Your task to perform on an android device: toggle sleep mode Image 0: 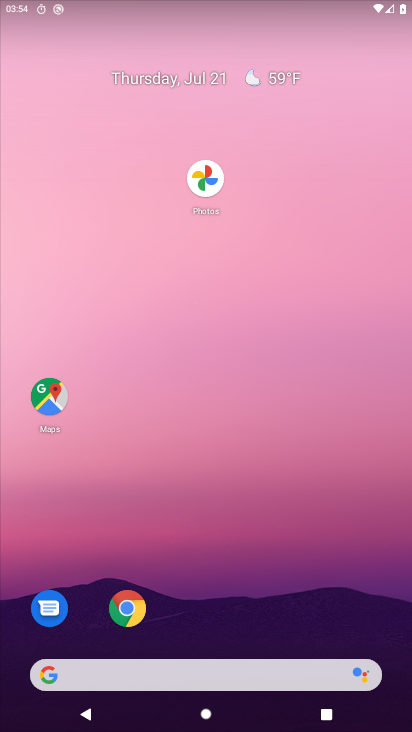
Step 0: drag from (218, 623) to (227, 320)
Your task to perform on an android device: toggle sleep mode Image 1: 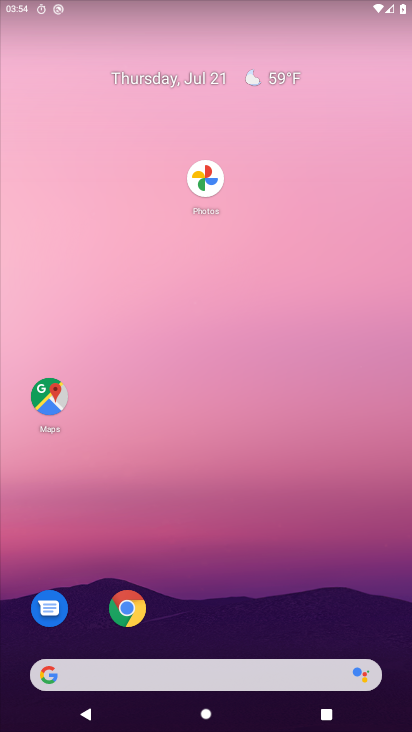
Step 1: drag from (194, 636) to (181, 251)
Your task to perform on an android device: toggle sleep mode Image 2: 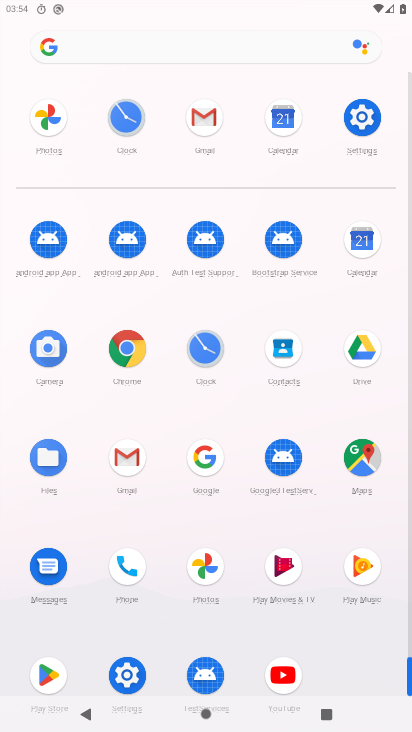
Step 2: click (365, 100)
Your task to perform on an android device: toggle sleep mode Image 3: 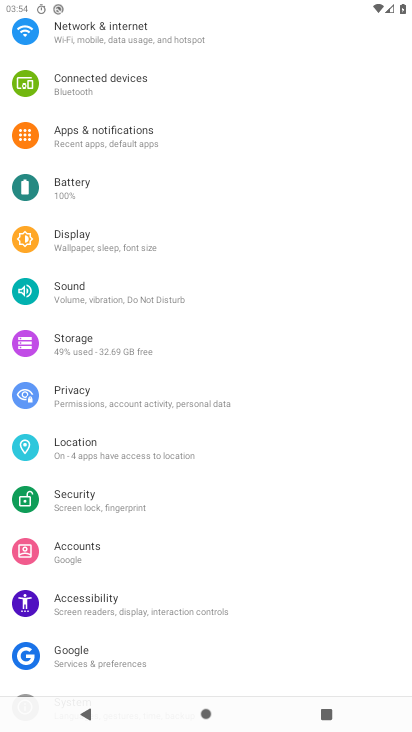
Step 3: click (99, 224)
Your task to perform on an android device: toggle sleep mode Image 4: 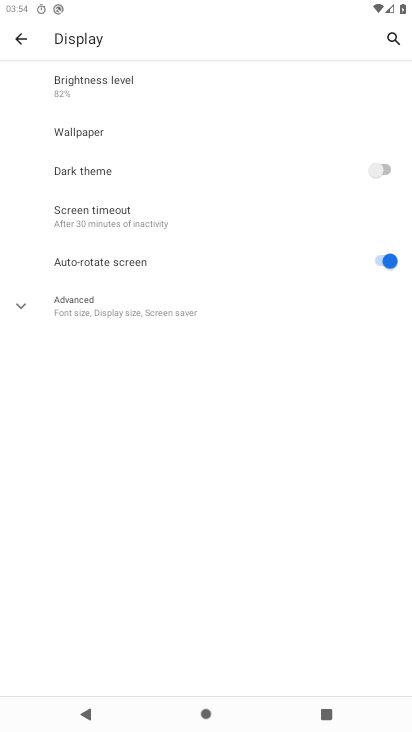
Step 4: click (19, 302)
Your task to perform on an android device: toggle sleep mode Image 5: 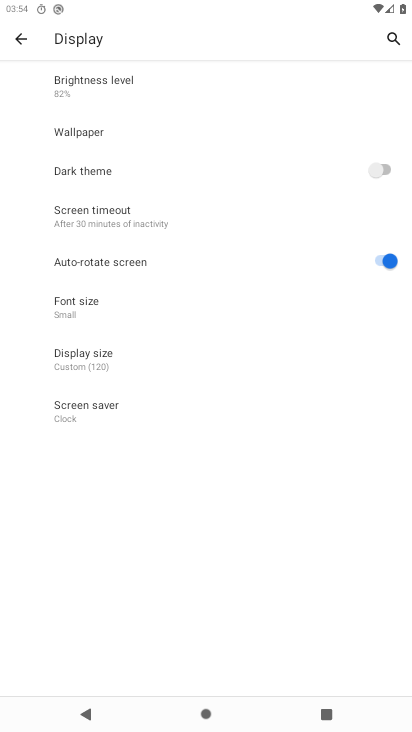
Step 5: task complete